Your task to perform on an android device: delete a single message in the gmail app Image 0: 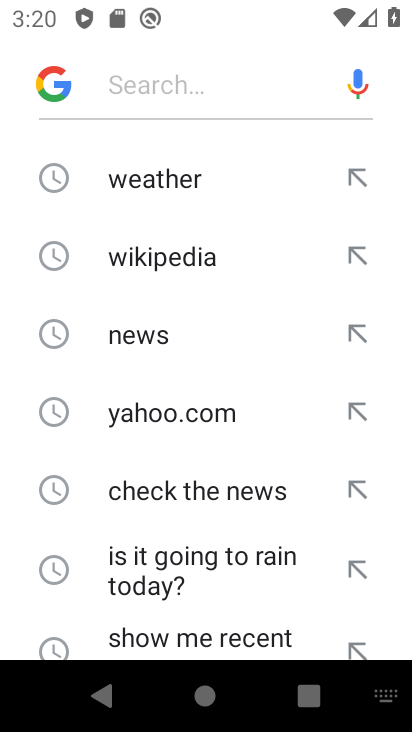
Step 0: press back button
Your task to perform on an android device: delete a single message in the gmail app Image 1: 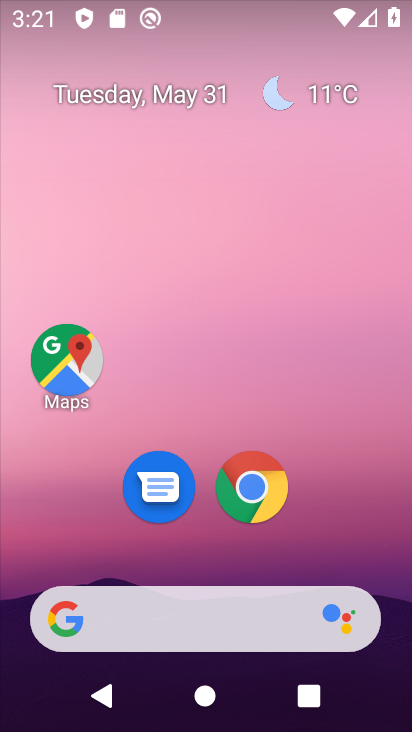
Step 1: drag from (323, 517) to (292, 142)
Your task to perform on an android device: delete a single message in the gmail app Image 2: 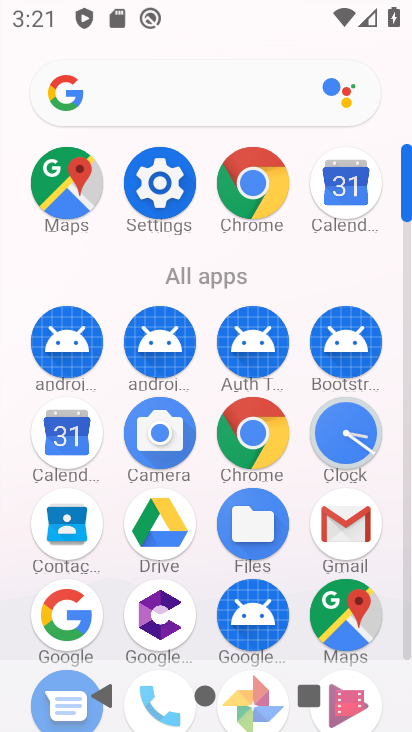
Step 2: click (347, 523)
Your task to perform on an android device: delete a single message in the gmail app Image 3: 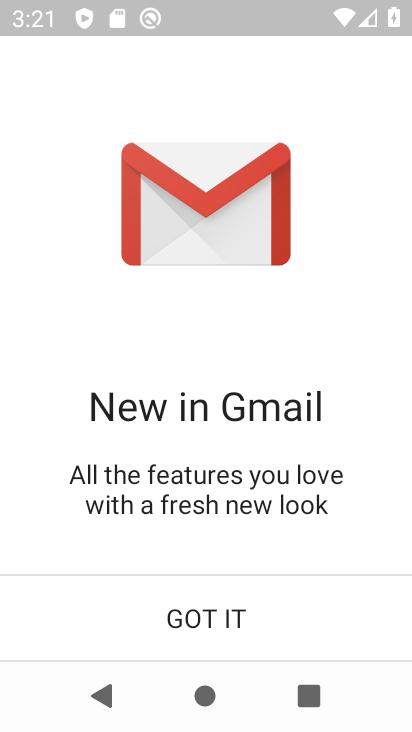
Step 3: click (226, 615)
Your task to perform on an android device: delete a single message in the gmail app Image 4: 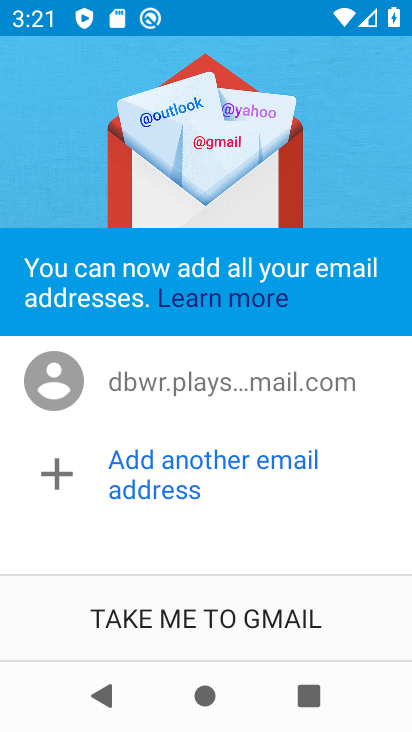
Step 4: click (226, 613)
Your task to perform on an android device: delete a single message in the gmail app Image 5: 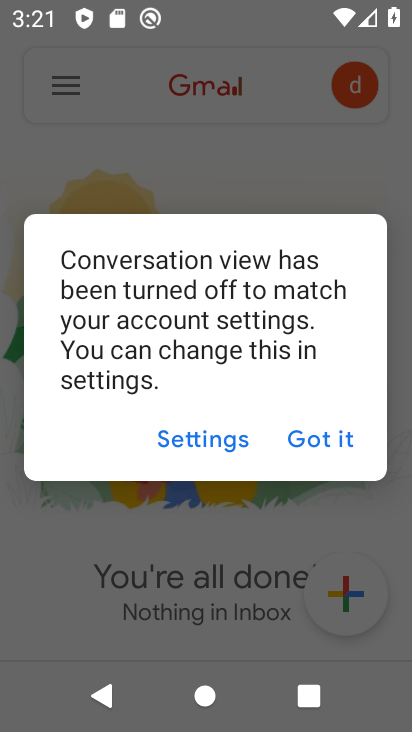
Step 5: click (335, 427)
Your task to perform on an android device: delete a single message in the gmail app Image 6: 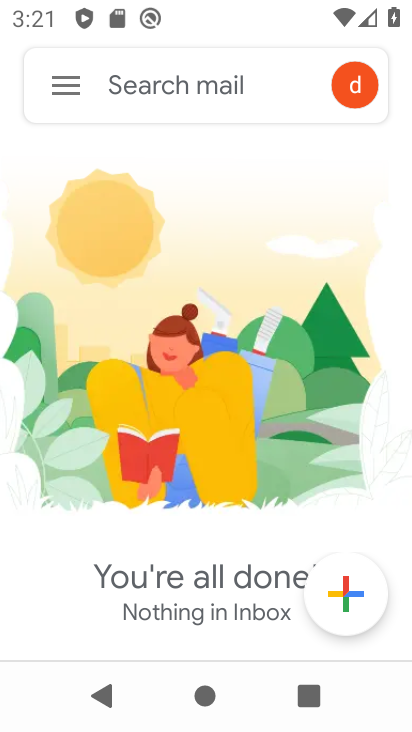
Step 6: click (59, 87)
Your task to perform on an android device: delete a single message in the gmail app Image 7: 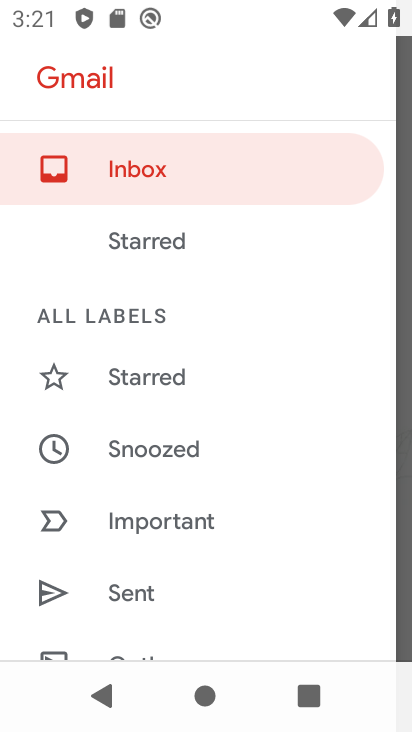
Step 7: drag from (156, 365) to (223, 279)
Your task to perform on an android device: delete a single message in the gmail app Image 8: 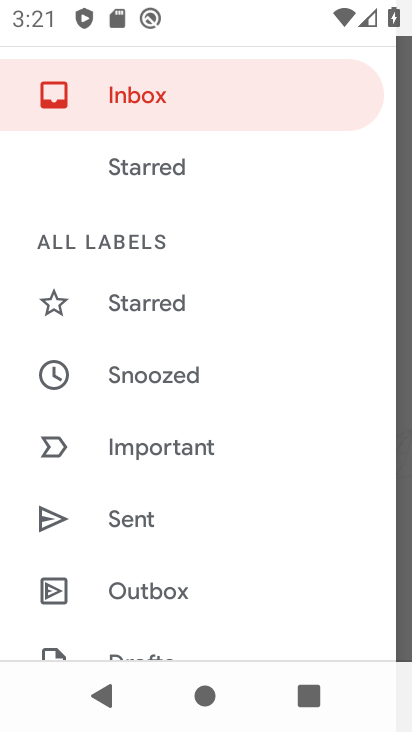
Step 8: drag from (158, 415) to (191, 333)
Your task to perform on an android device: delete a single message in the gmail app Image 9: 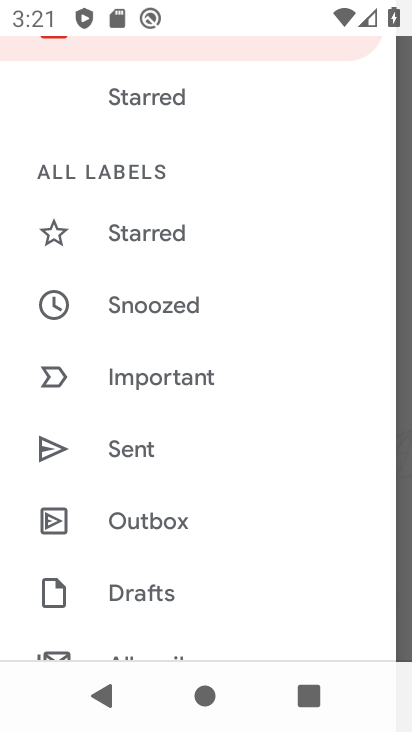
Step 9: drag from (126, 419) to (192, 342)
Your task to perform on an android device: delete a single message in the gmail app Image 10: 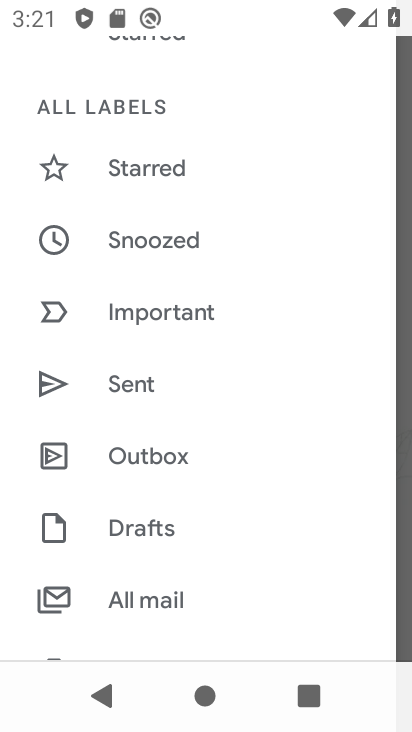
Step 10: drag from (140, 415) to (200, 341)
Your task to perform on an android device: delete a single message in the gmail app Image 11: 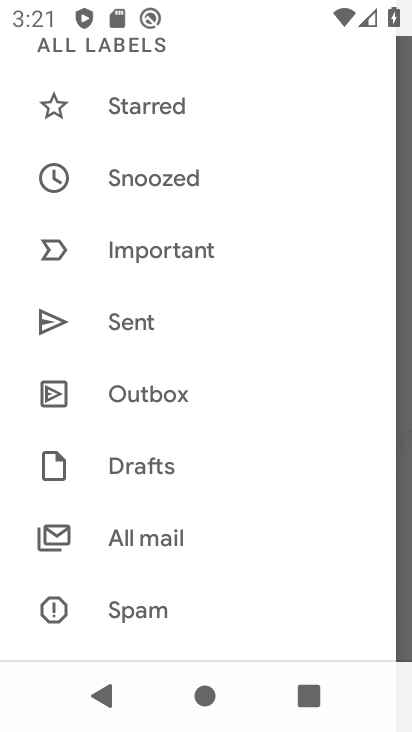
Step 11: drag from (152, 421) to (206, 351)
Your task to perform on an android device: delete a single message in the gmail app Image 12: 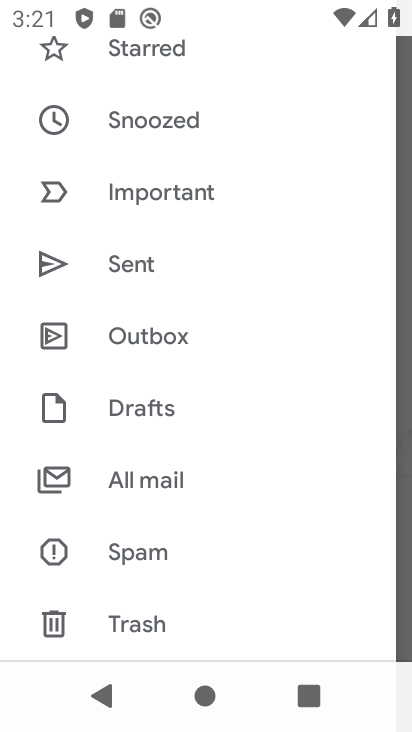
Step 12: drag from (155, 431) to (206, 359)
Your task to perform on an android device: delete a single message in the gmail app Image 13: 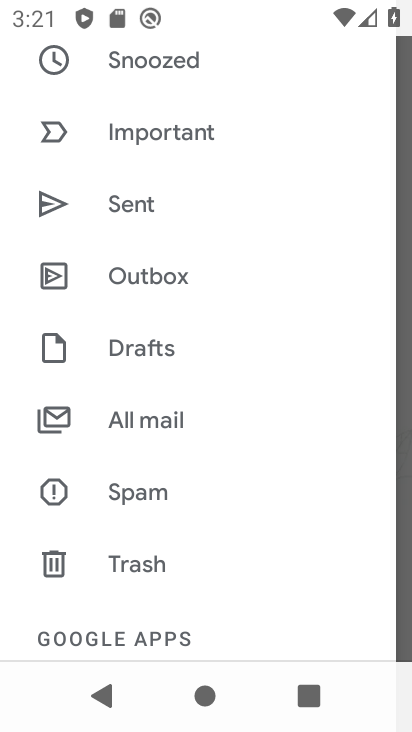
Step 13: drag from (160, 456) to (217, 381)
Your task to perform on an android device: delete a single message in the gmail app Image 14: 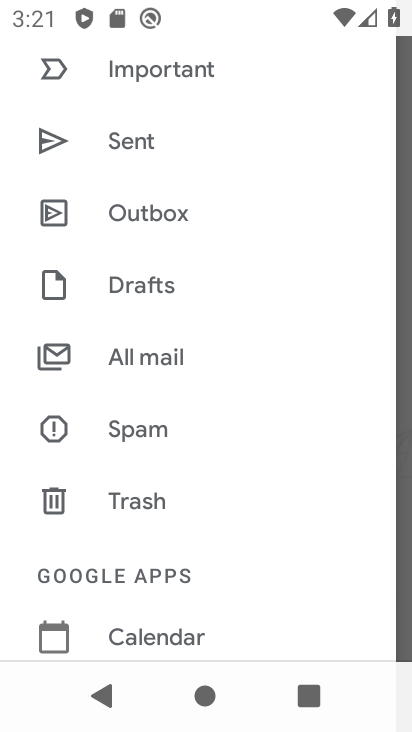
Step 14: click (192, 361)
Your task to perform on an android device: delete a single message in the gmail app Image 15: 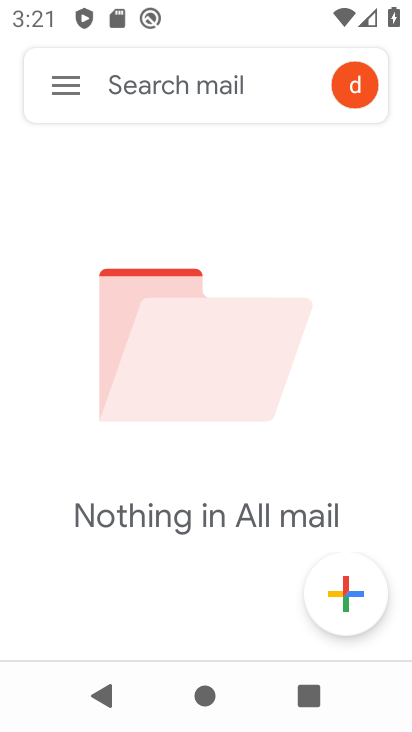
Step 15: click (56, 80)
Your task to perform on an android device: delete a single message in the gmail app Image 16: 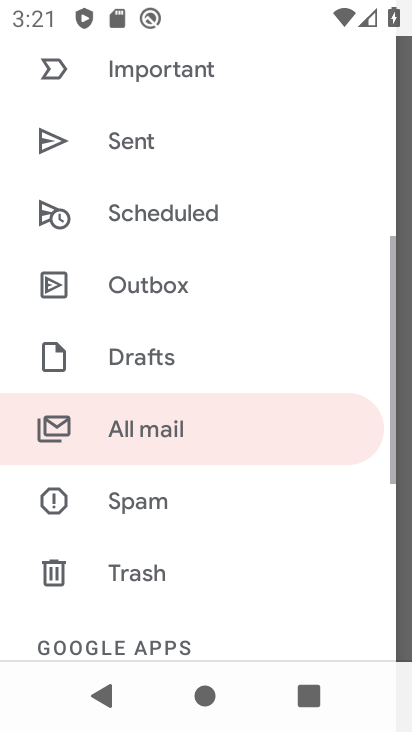
Step 16: task complete